Your task to perform on an android device: Turn on the flashlight Image 0: 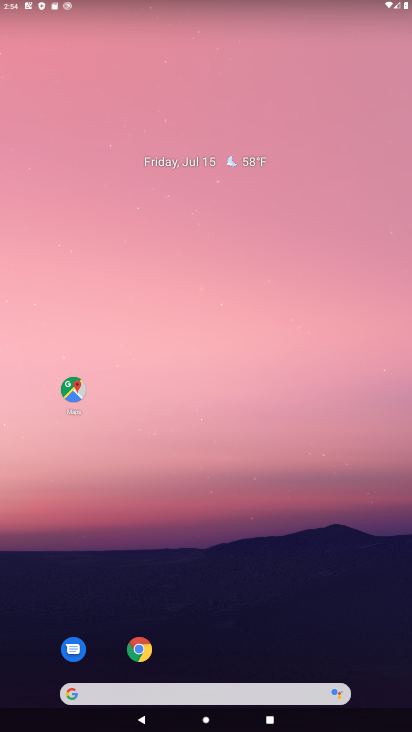
Step 0: drag from (225, 718) to (239, 152)
Your task to perform on an android device: Turn on the flashlight Image 1: 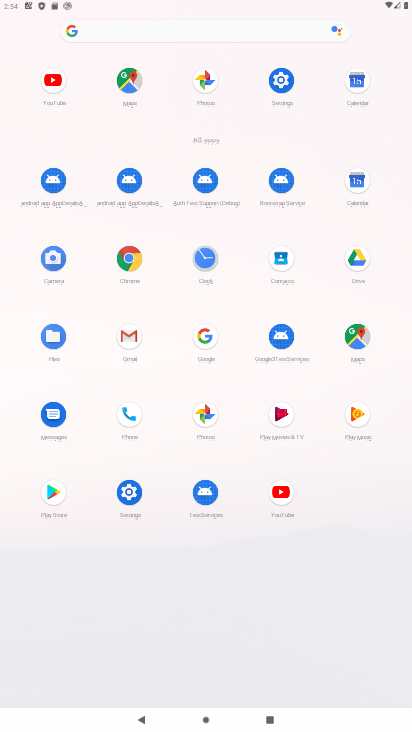
Step 1: click (280, 82)
Your task to perform on an android device: Turn on the flashlight Image 2: 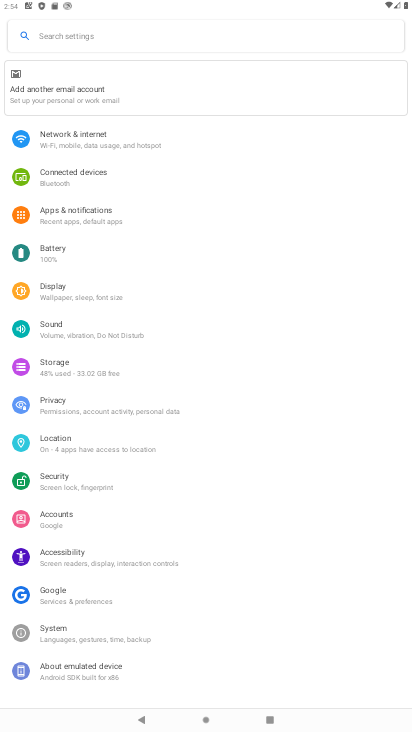
Step 2: task complete